Your task to perform on an android device: Go to Android settings Image 0: 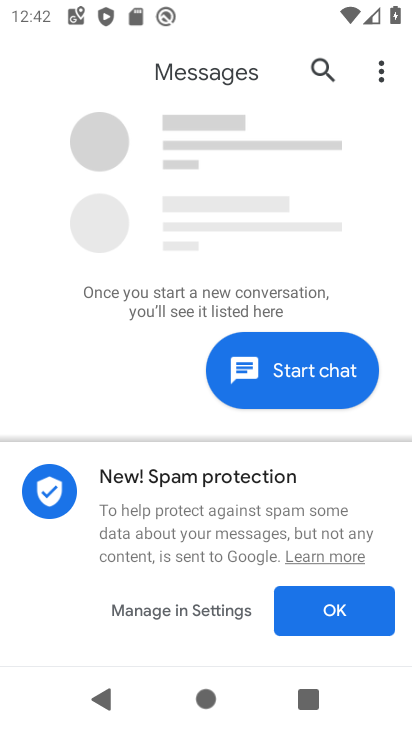
Step 0: press home button
Your task to perform on an android device: Go to Android settings Image 1: 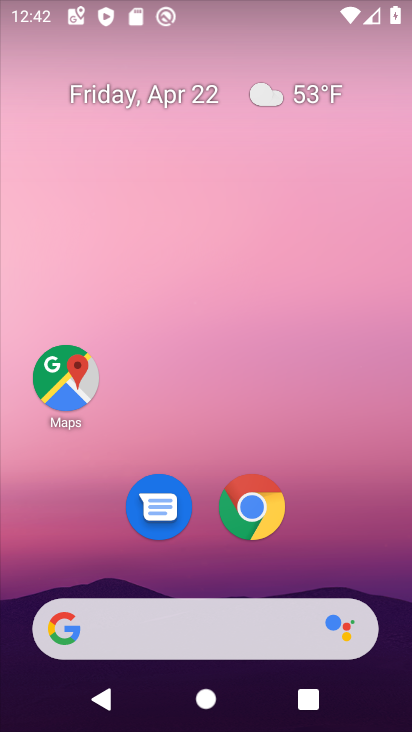
Step 1: drag from (323, 481) to (276, 140)
Your task to perform on an android device: Go to Android settings Image 2: 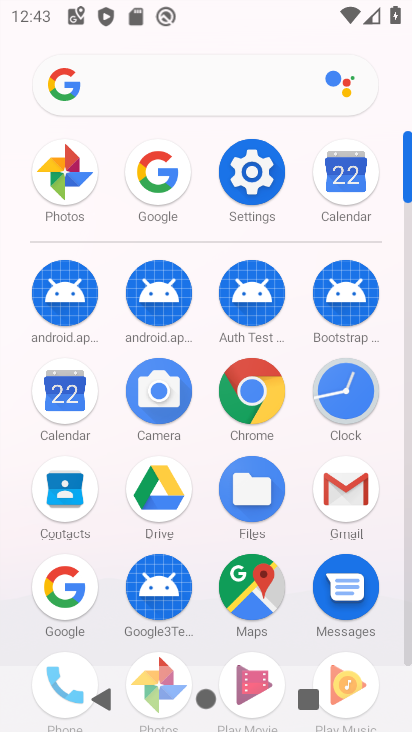
Step 2: click (254, 176)
Your task to perform on an android device: Go to Android settings Image 3: 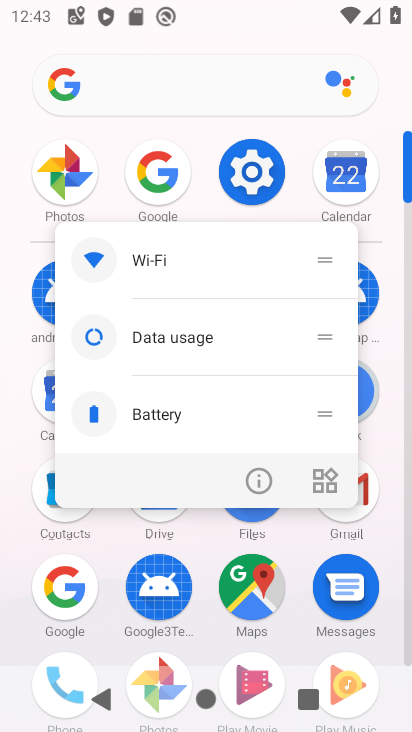
Step 3: click (254, 176)
Your task to perform on an android device: Go to Android settings Image 4: 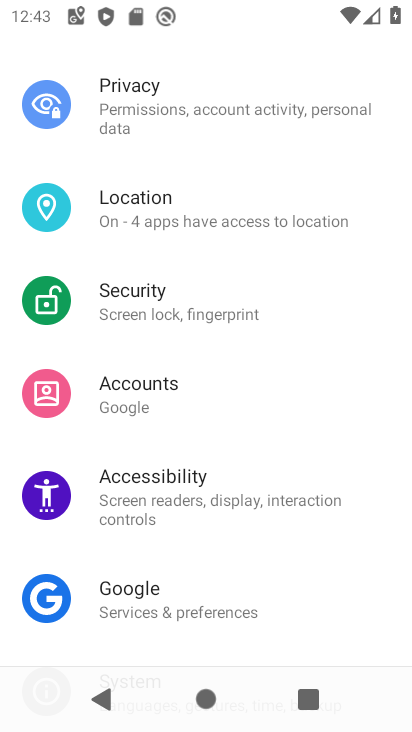
Step 4: drag from (259, 576) to (246, 229)
Your task to perform on an android device: Go to Android settings Image 5: 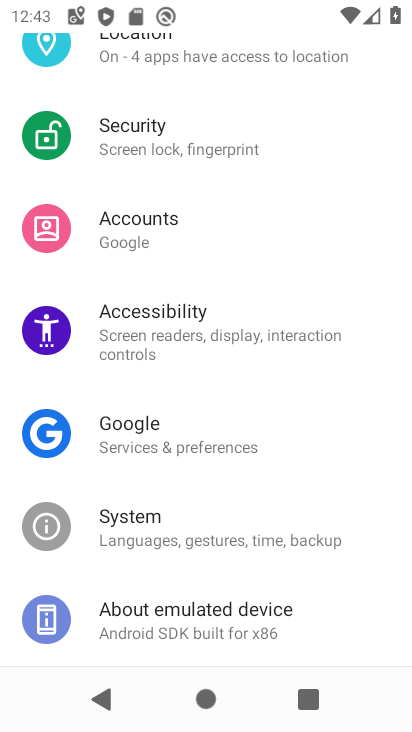
Step 5: click (186, 616)
Your task to perform on an android device: Go to Android settings Image 6: 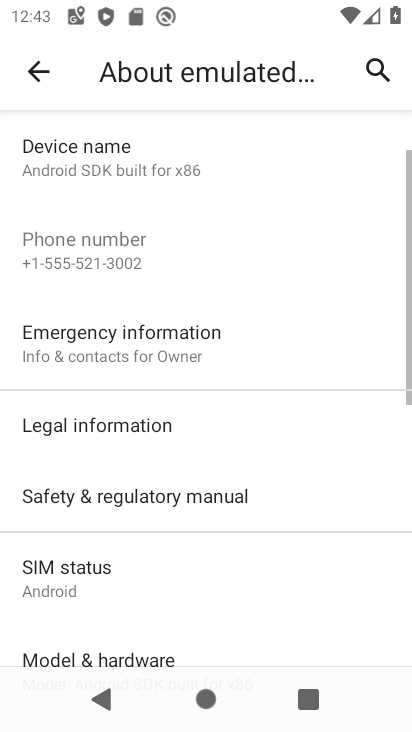
Step 6: drag from (158, 604) to (169, 231)
Your task to perform on an android device: Go to Android settings Image 7: 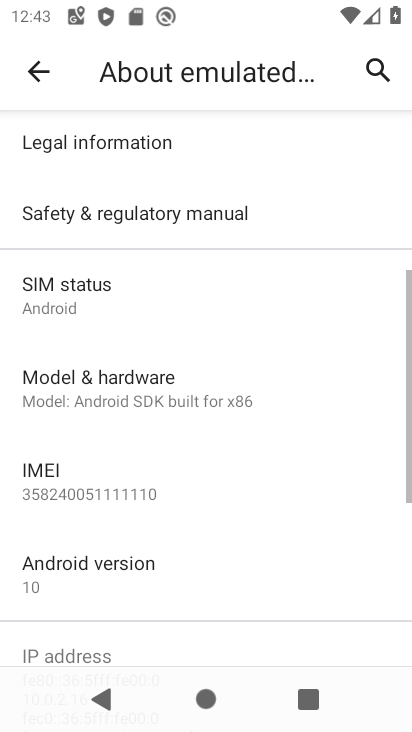
Step 7: drag from (61, 551) to (54, 246)
Your task to perform on an android device: Go to Android settings Image 8: 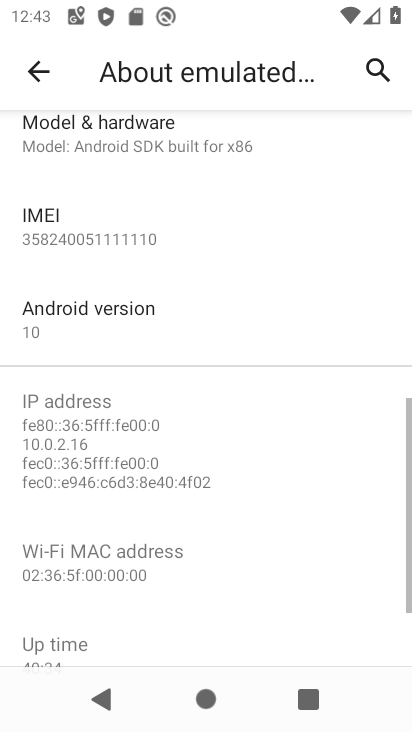
Step 8: drag from (90, 526) to (73, 292)
Your task to perform on an android device: Go to Android settings Image 9: 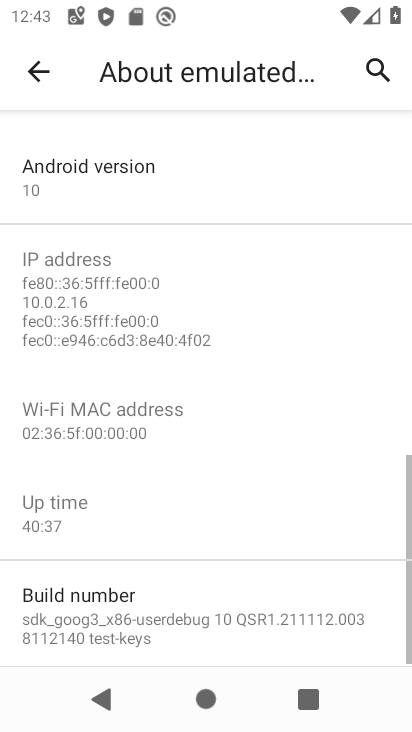
Step 9: click (129, 187)
Your task to perform on an android device: Go to Android settings Image 10: 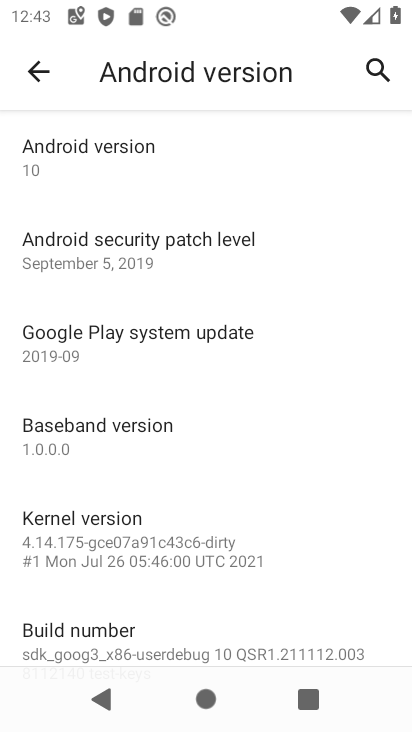
Step 10: task complete